Your task to perform on an android device: uninstall "Viber Messenger" Image 0: 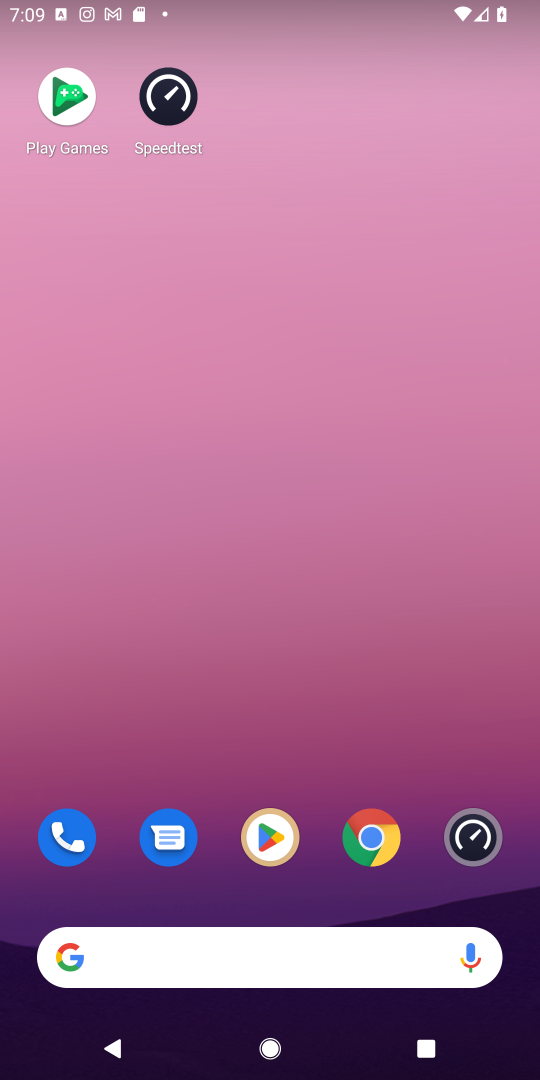
Step 0: press home button
Your task to perform on an android device: uninstall "Viber Messenger" Image 1: 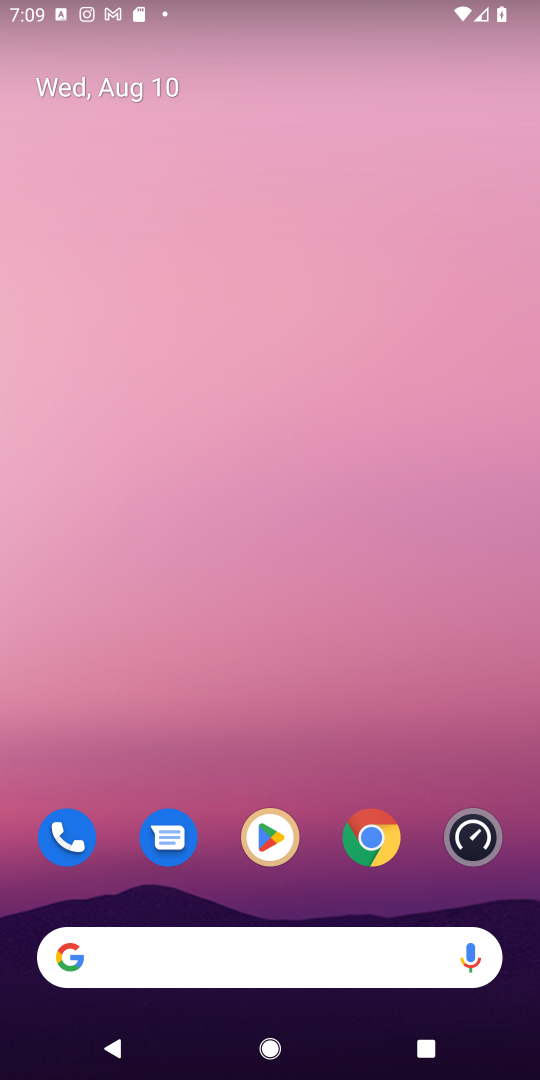
Step 1: click (268, 836)
Your task to perform on an android device: uninstall "Viber Messenger" Image 2: 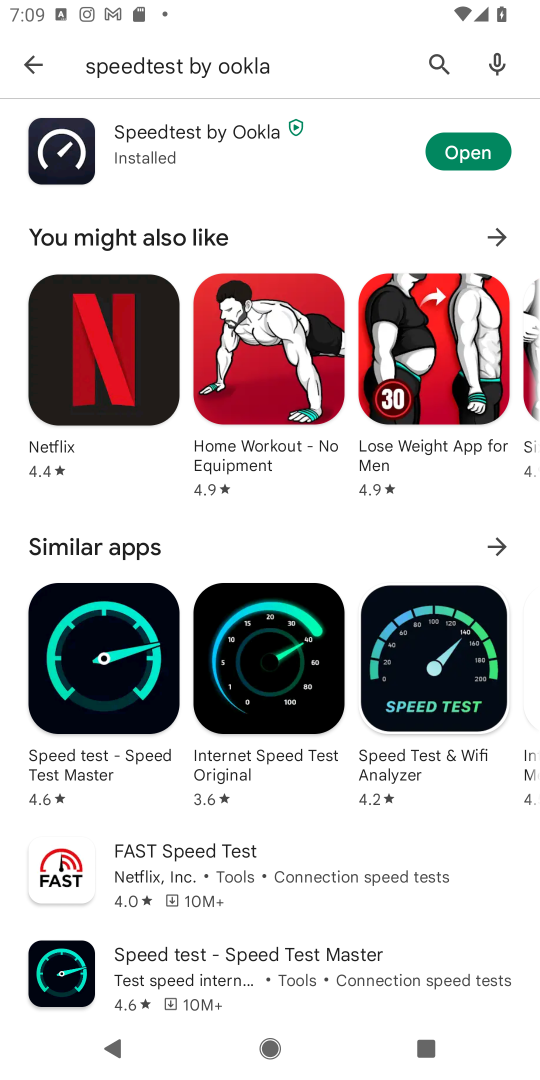
Step 2: click (437, 55)
Your task to perform on an android device: uninstall "Viber Messenger" Image 3: 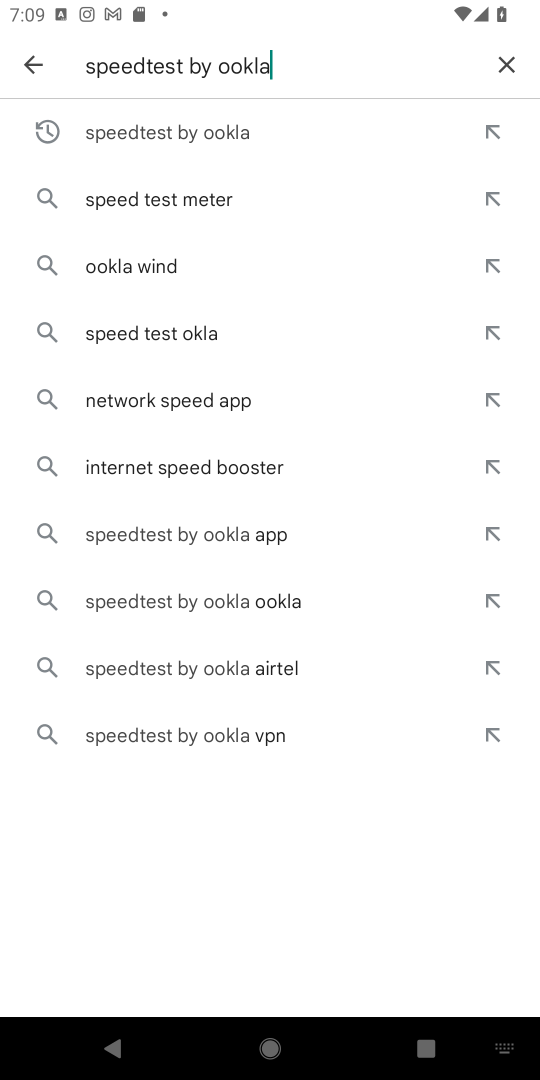
Step 3: click (503, 59)
Your task to perform on an android device: uninstall "Viber Messenger" Image 4: 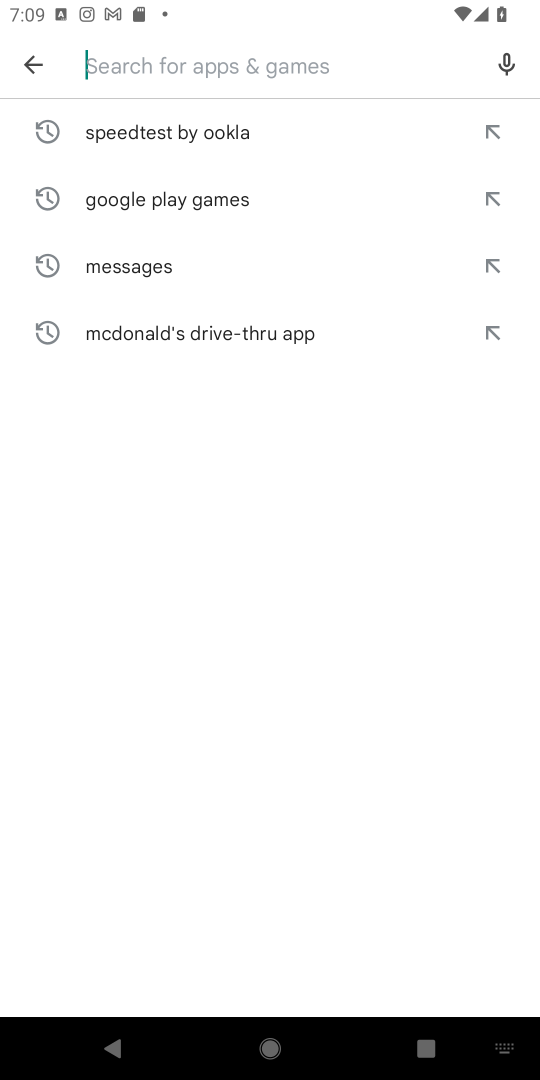
Step 4: type "Viber Messenger"
Your task to perform on an android device: uninstall "Viber Messenger" Image 5: 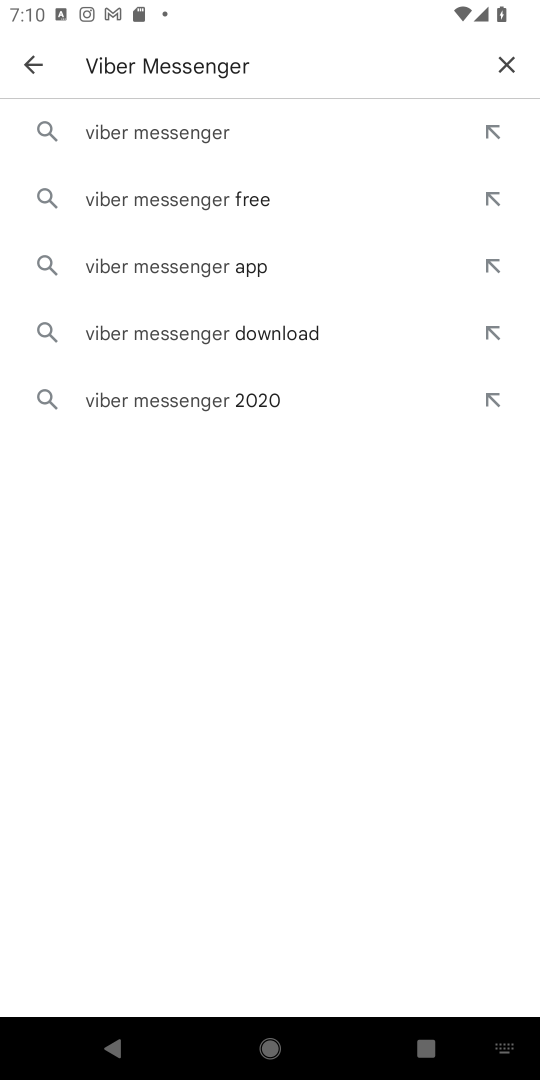
Step 5: click (172, 135)
Your task to perform on an android device: uninstall "Viber Messenger" Image 6: 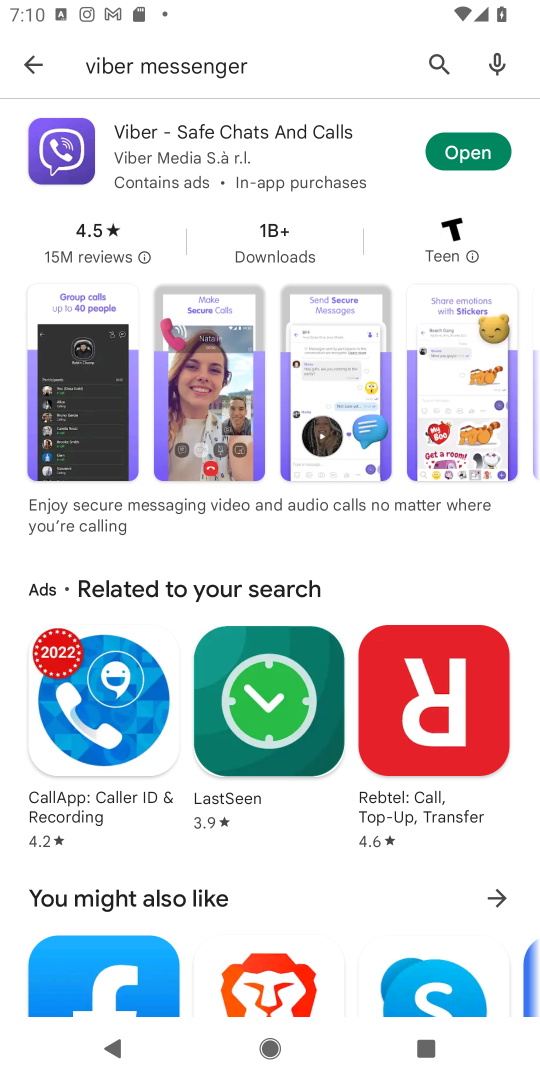
Step 6: click (170, 130)
Your task to perform on an android device: uninstall "Viber Messenger" Image 7: 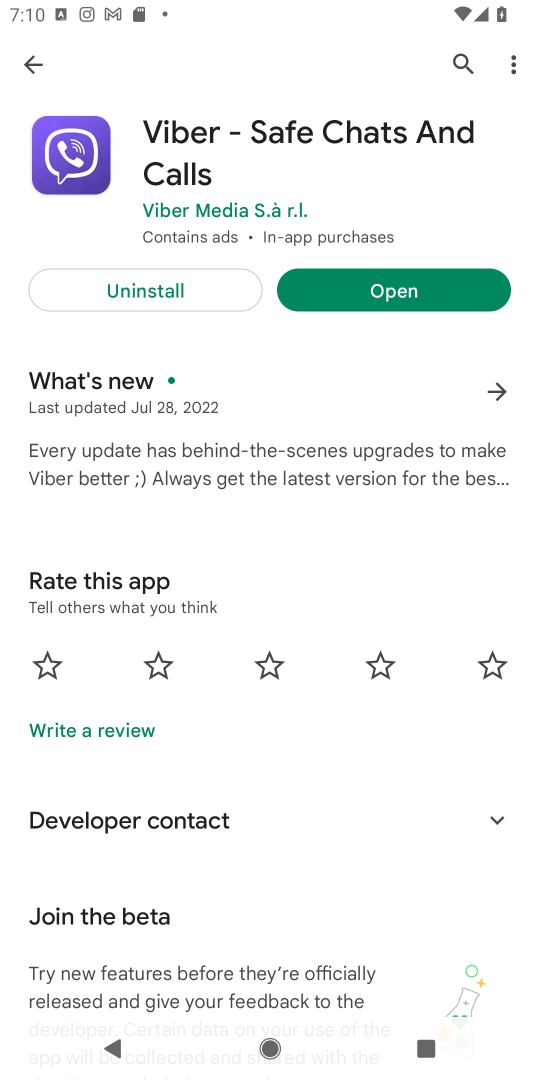
Step 7: click (150, 283)
Your task to perform on an android device: uninstall "Viber Messenger" Image 8: 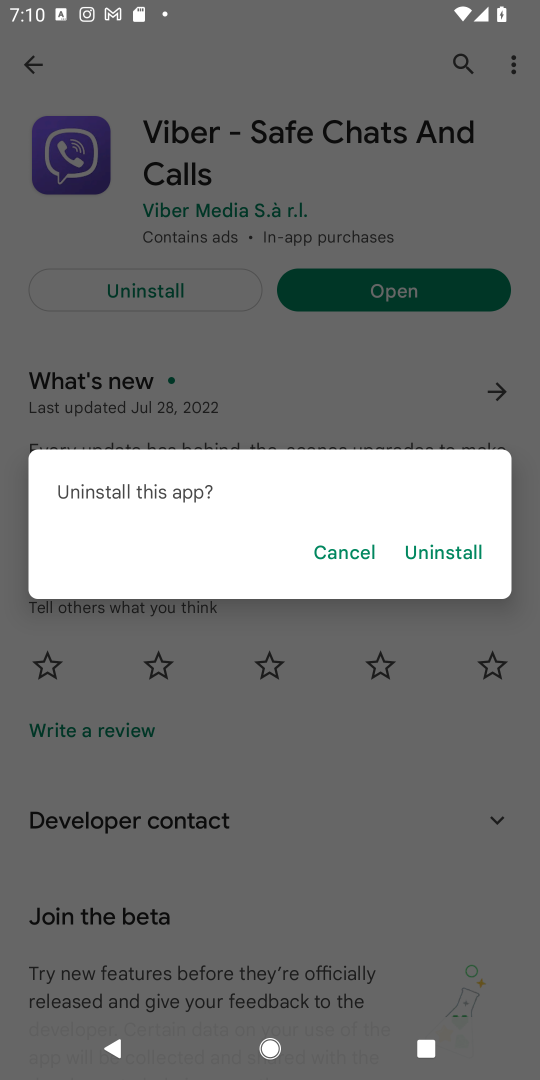
Step 8: click (446, 561)
Your task to perform on an android device: uninstall "Viber Messenger" Image 9: 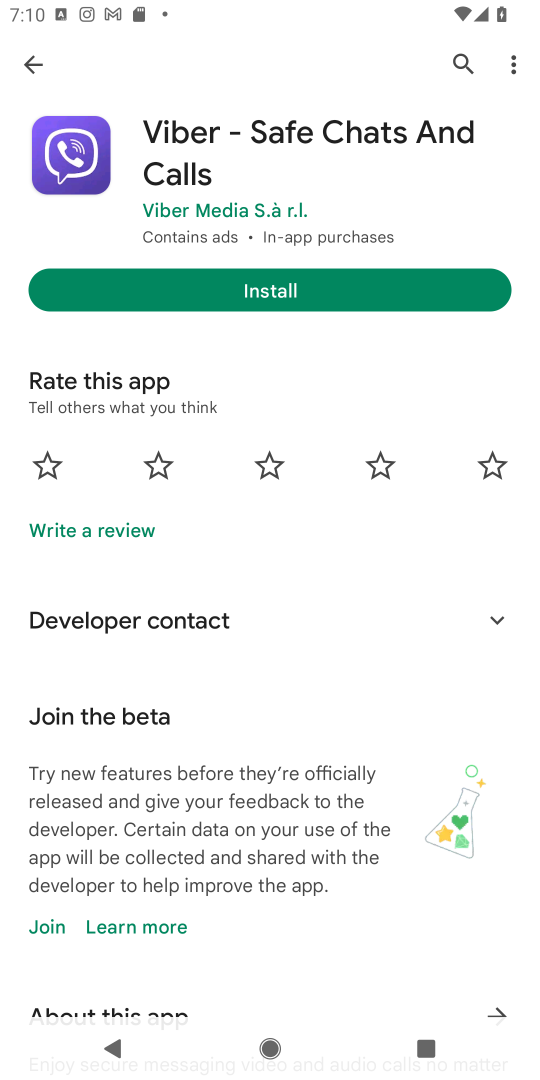
Step 9: task complete